Your task to perform on an android device: Do I have any events tomorrow? Image 0: 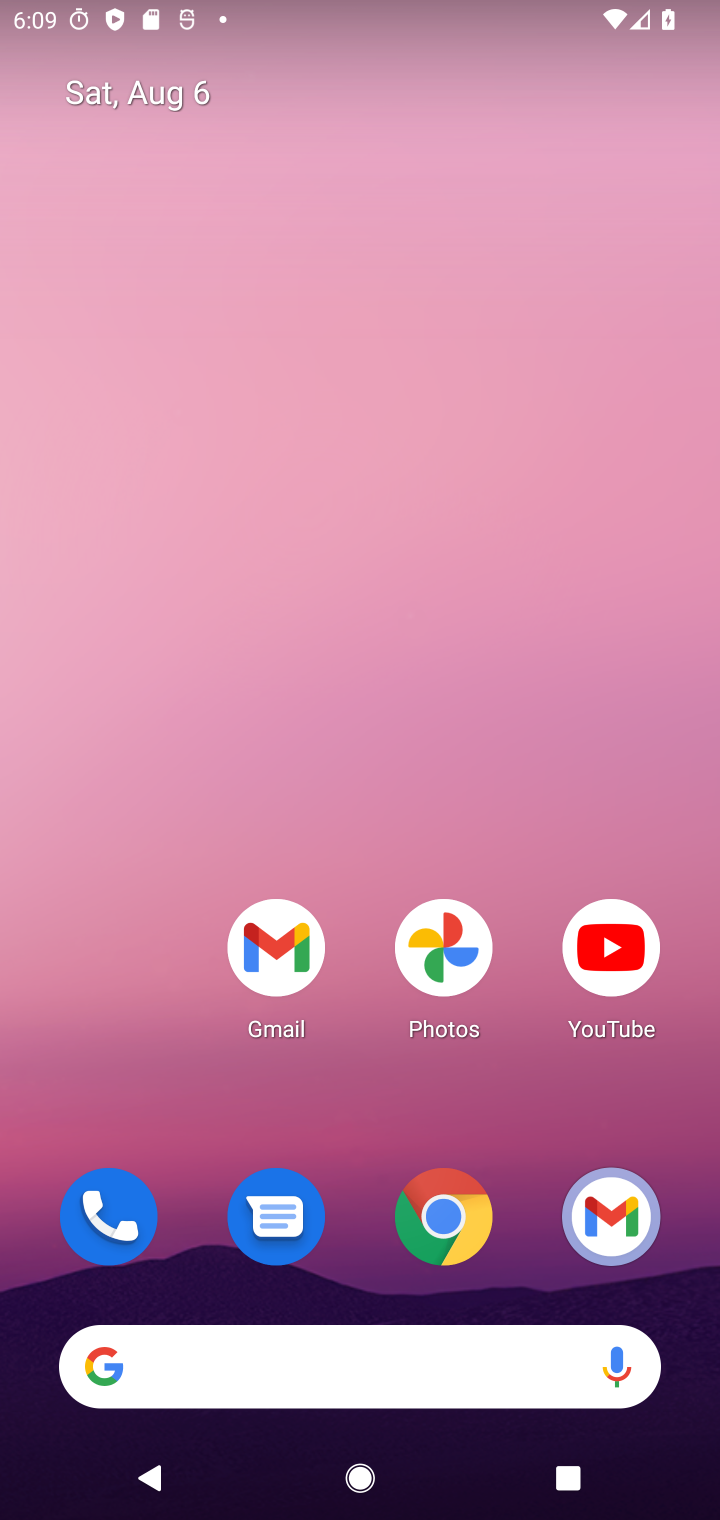
Step 0: drag from (512, 650) to (419, 51)
Your task to perform on an android device: Do I have any events tomorrow? Image 1: 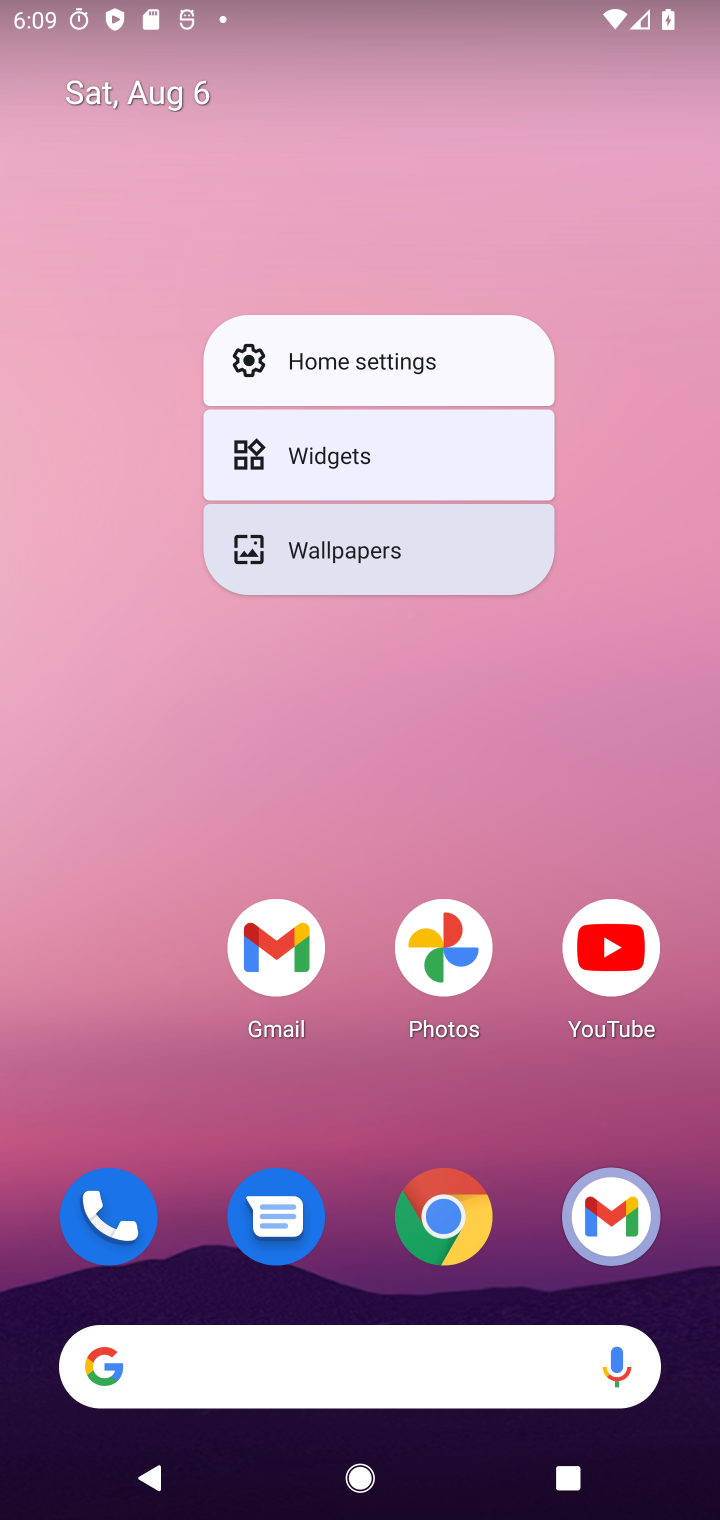
Step 1: click (330, 717)
Your task to perform on an android device: Do I have any events tomorrow? Image 2: 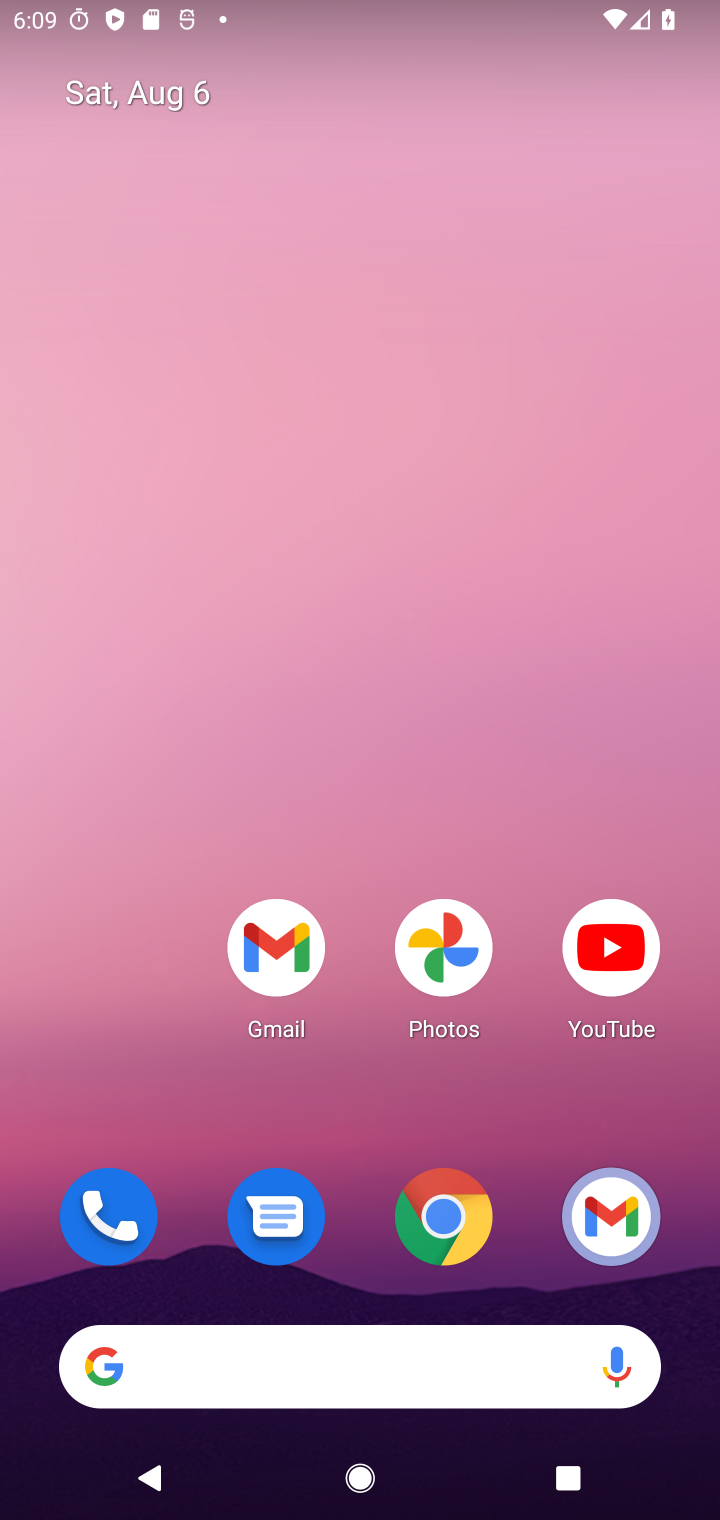
Step 2: drag from (508, 1035) to (478, 144)
Your task to perform on an android device: Do I have any events tomorrow? Image 3: 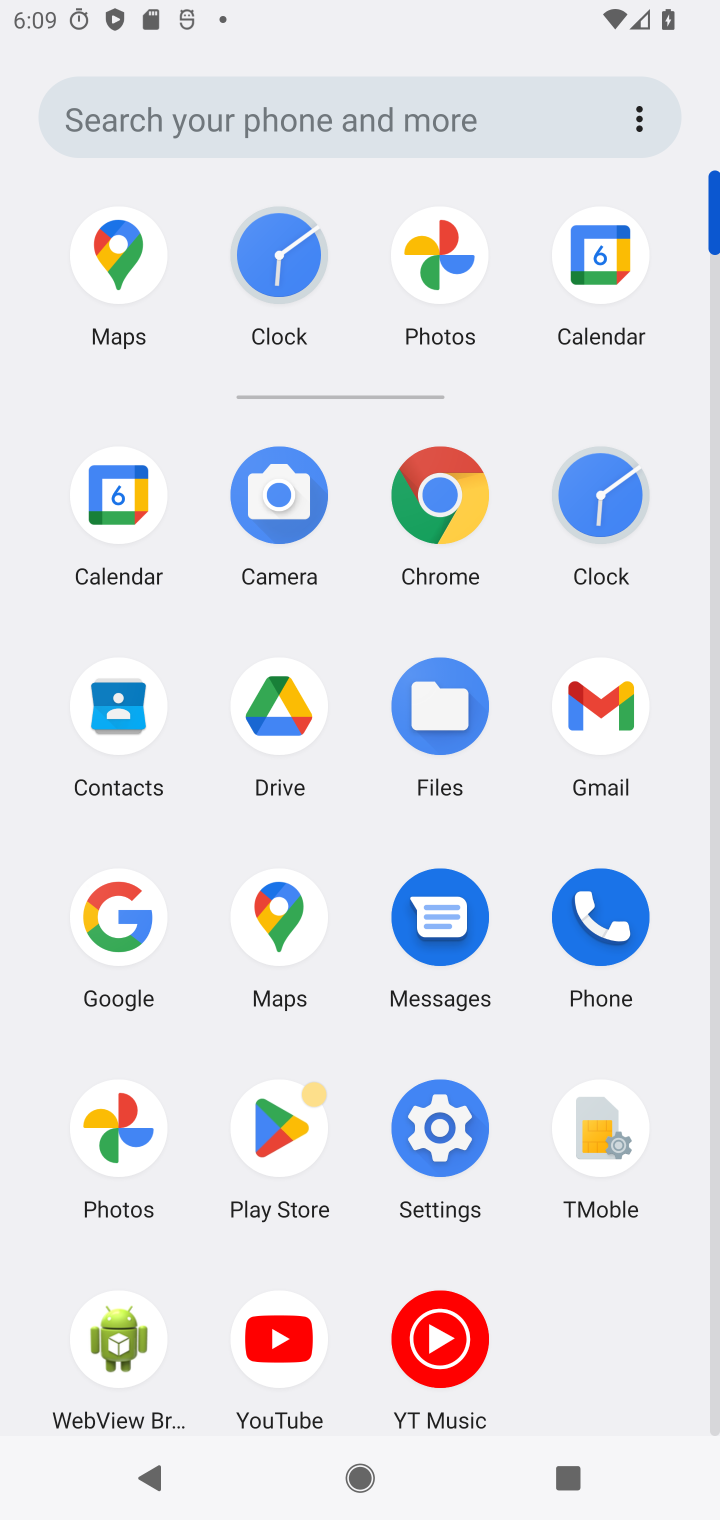
Step 3: click (116, 495)
Your task to perform on an android device: Do I have any events tomorrow? Image 4: 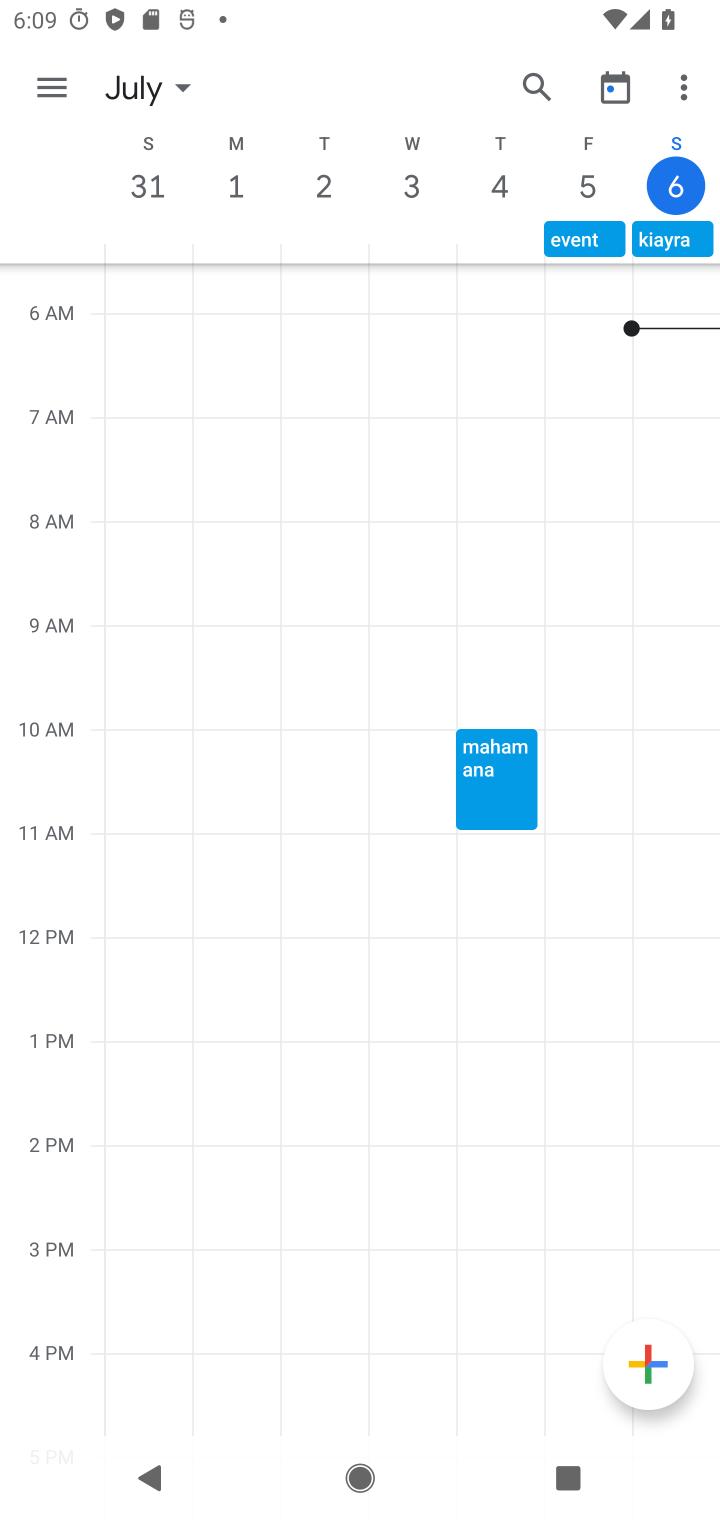
Step 4: drag from (630, 198) to (192, 186)
Your task to perform on an android device: Do I have any events tomorrow? Image 5: 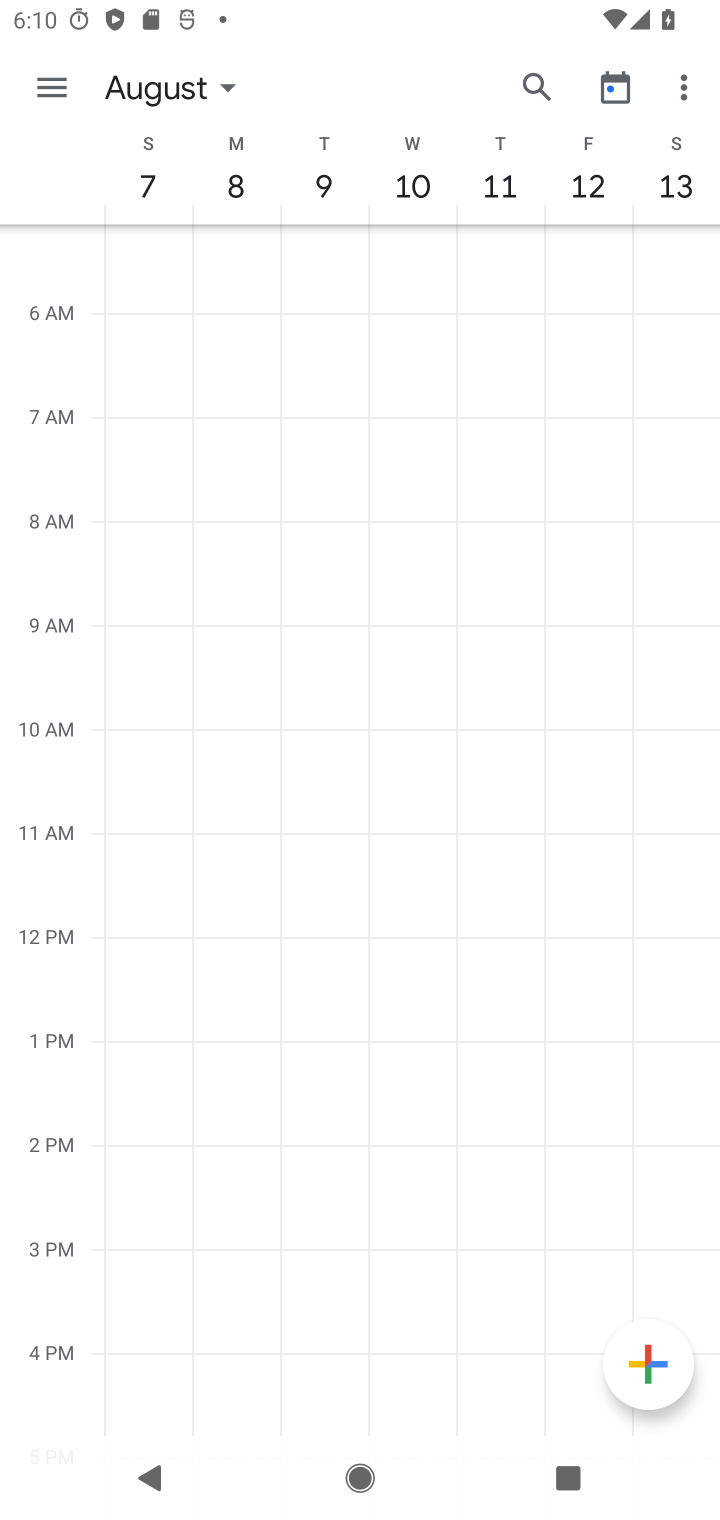
Step 5: click (157, 161)
Your task to perform on an android device: Do I have any events tomorrow? Image 6: 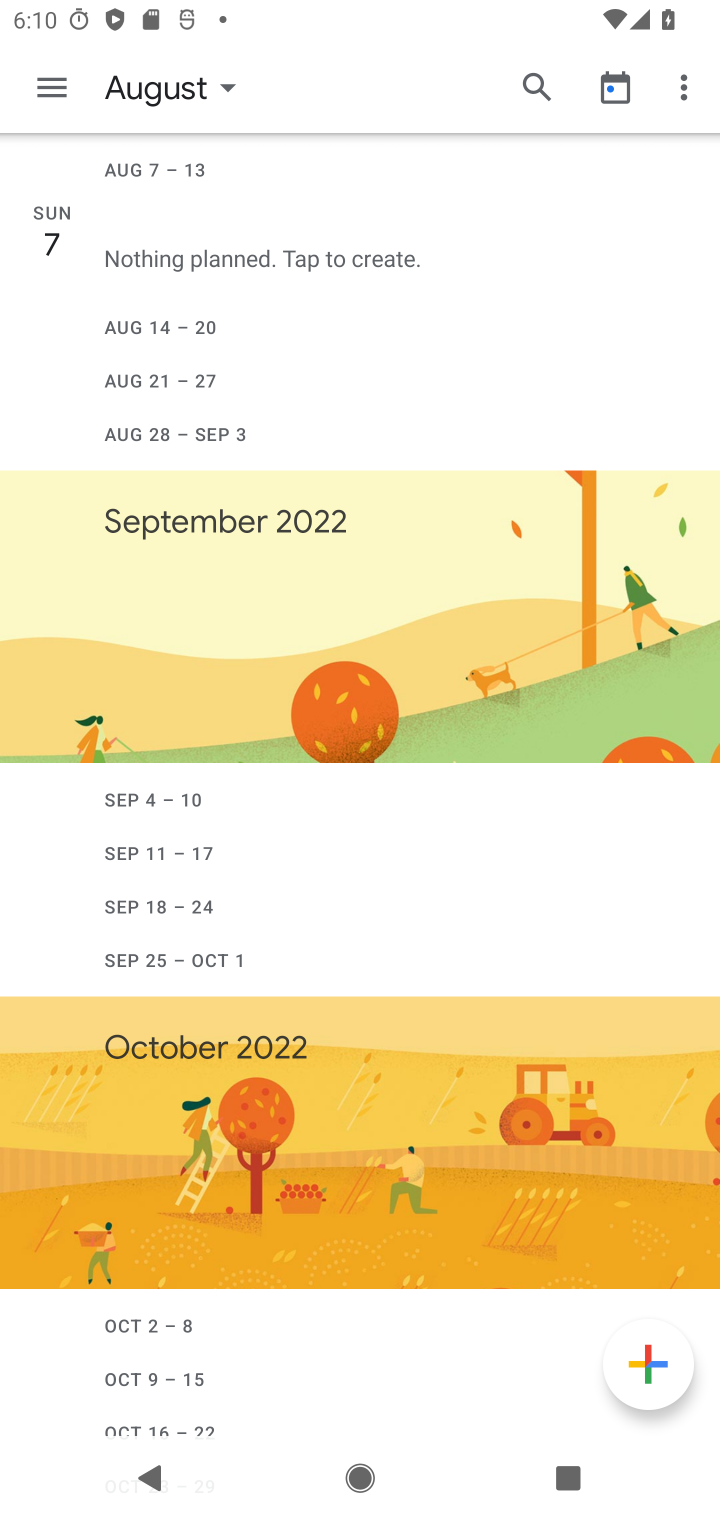
Step 6: task complete